Your task to perform on an android device: Go to CNN.com Image 0: 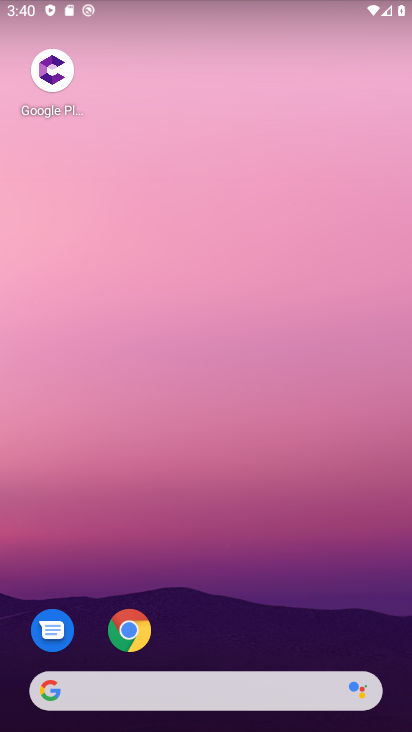
Step 0: drag from (148, 354) to (122, 282)
Your task to perform on an android device: Go to CNN.com Image 1: 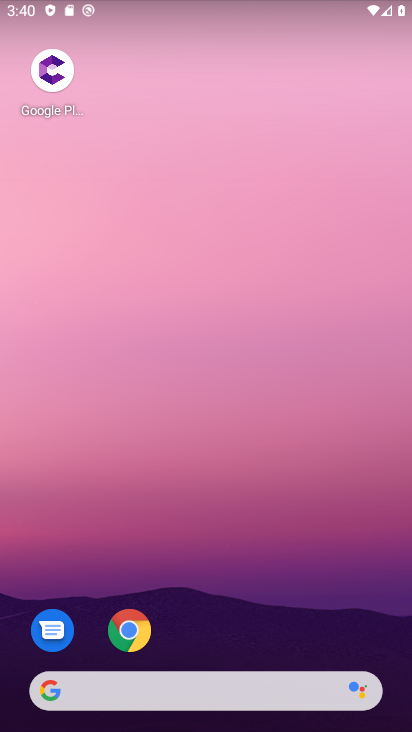
Step 1: drag from (249, 673) to (249, 271)
Your task to perform on an android device: Go to CNN.com Image 2: 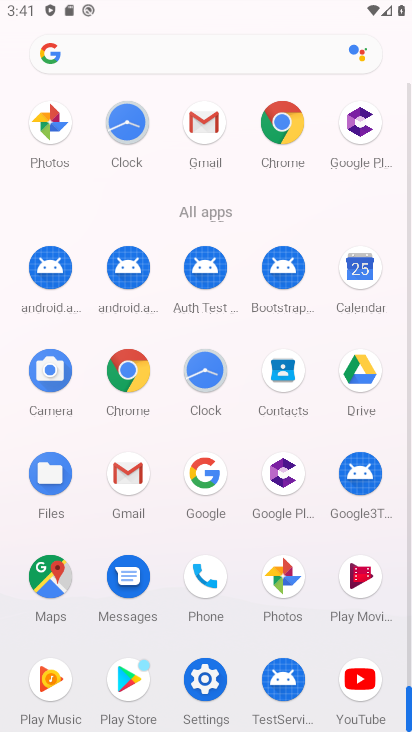
Step 2: click (271, 122)
Your task to perform on an android device: Go to CNN.com Image 3: 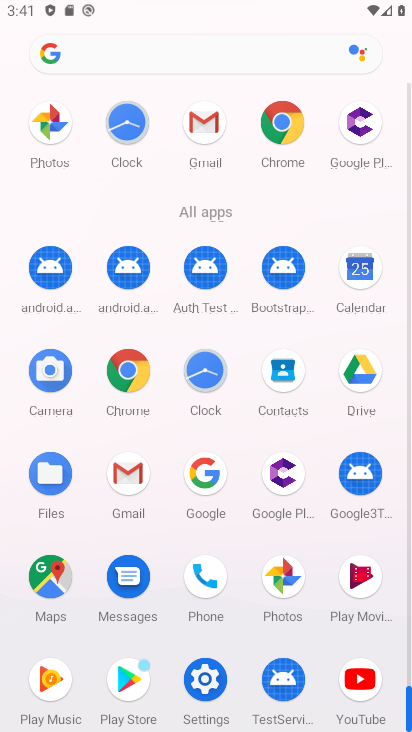
Step 3: click (271, 122)
Your task to perform on an android device: Go to CNN.com Image 4: 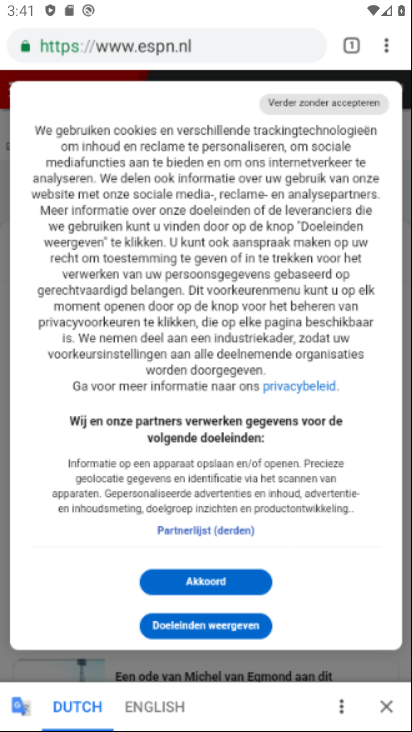
Step 4: click (276, 120)
Your task to perform on an android device: Go to CNN.com Image 5: 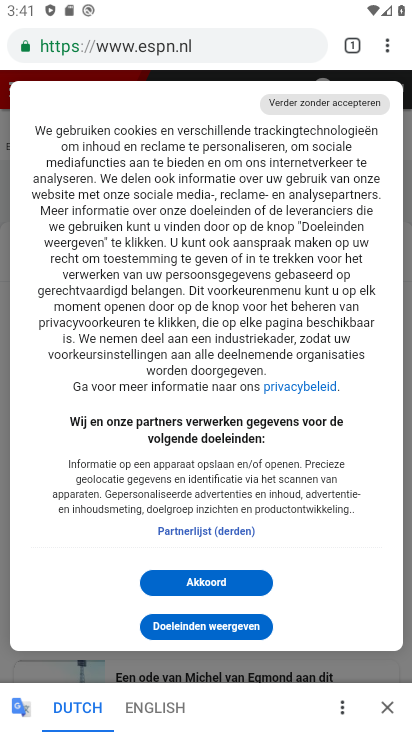
Step 5: drag from (391, 42) to (237, 87)
Your task to perform on an android device: Go to CNN.com Image 6: 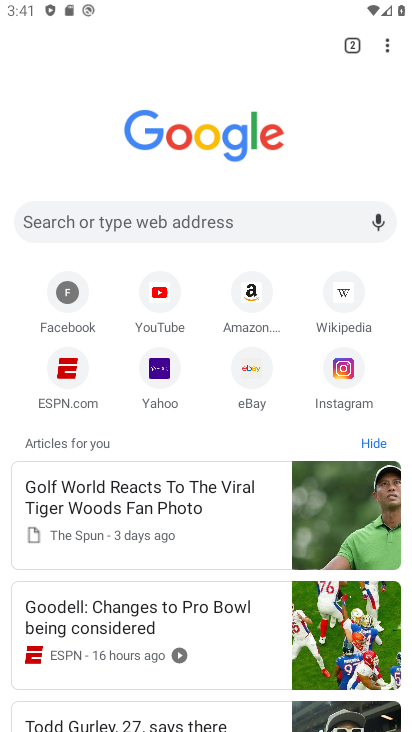
Step 6: click (45, 210)
Your task to perform on an android device: Go to CNN.com Image 7: 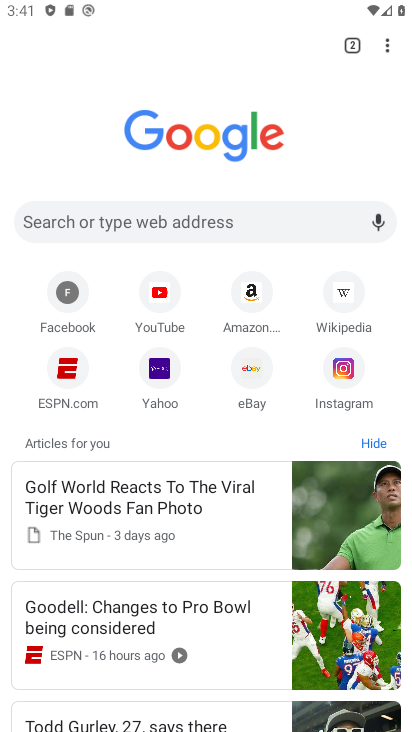
Step 7: click (45, 210)
Your task to perform on an android device: Go to CNN.com Image 8: 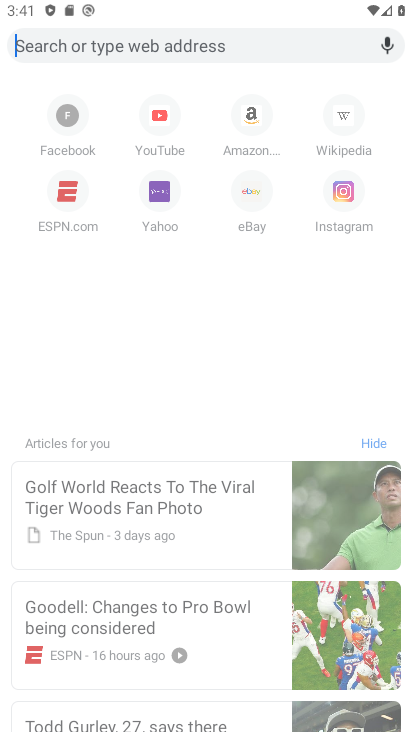
Step 8: click (45, 210)
Your task to perform on an android device: Go to CNN.com Image 9: 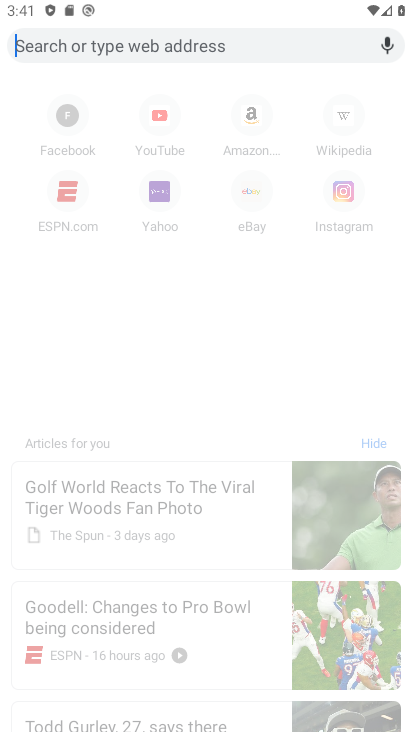
Step 9: click (45, 210)
Your task to perform on an android device: Go to CNN.com Image 10: 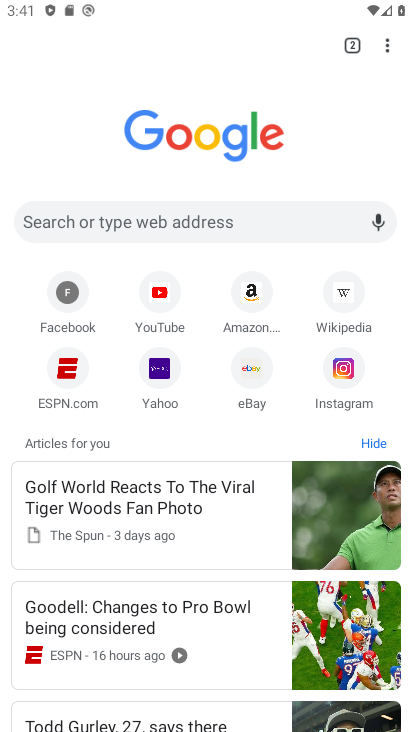
Step 10: click (55, 224)
Your task to perform on an android device: Go to CNN.com Image 11: 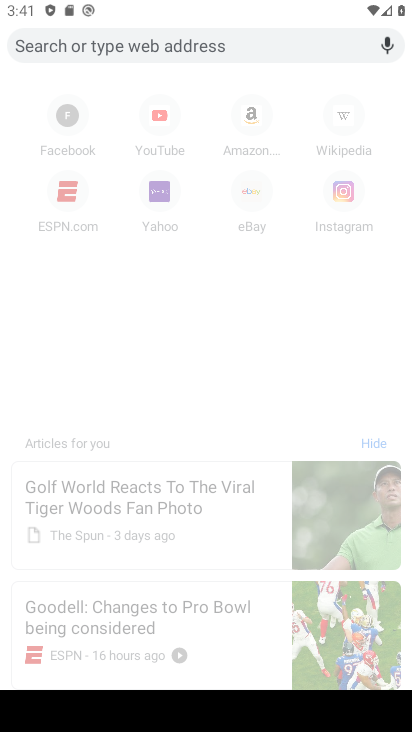
Step 11: type "cnn.com"
Your task to perform on an android device: Go to CNN.com Image 12: 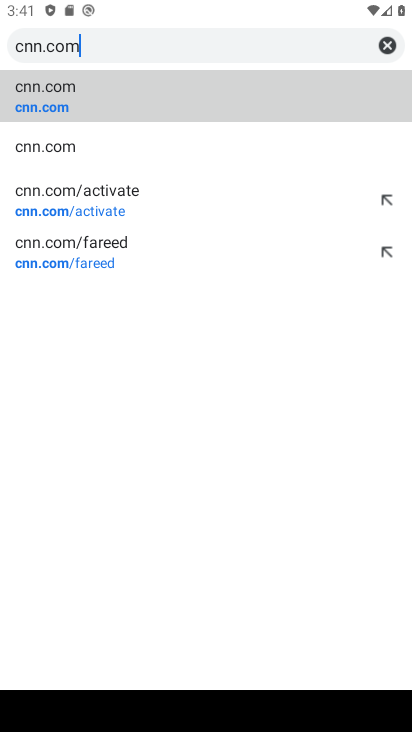
Step 12: click (20, 95)
Your task to perform on an android device: Go to CNN.com Image 13: 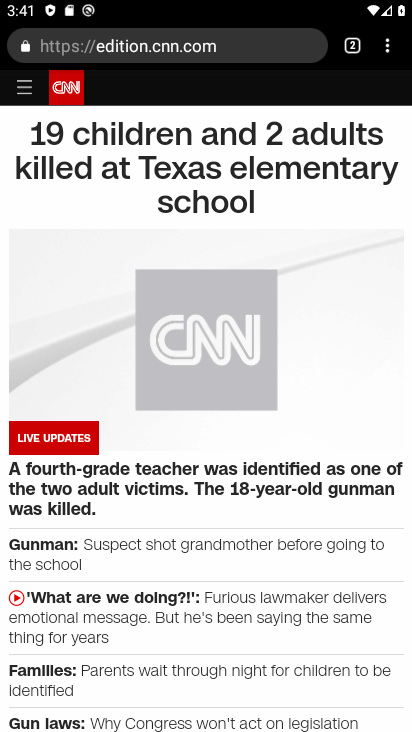
Step 13: task complete